Your task to perform on an android device: turn pop-ups on in chrome Image 0: 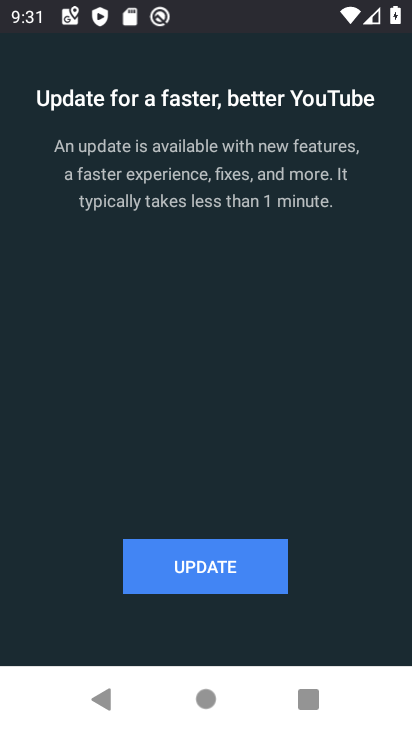
Step 0: press back button
Your task to perform on an android device: turn pop-ups on in chrome Image 1: 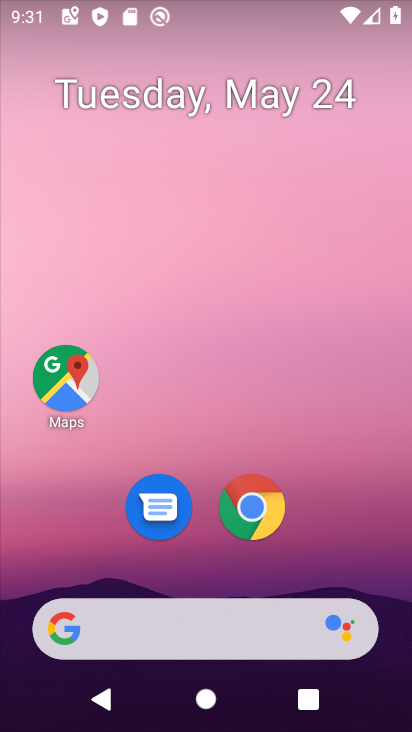
Step 1: click (266, 518)
Your task to perform on an android device: turn pop-ups on in chrome Image 2: 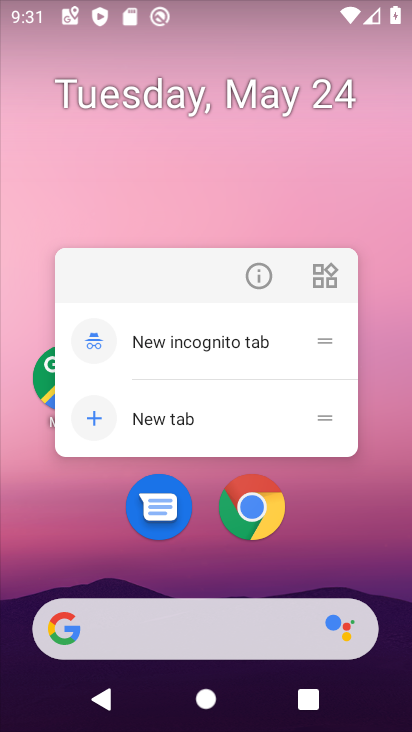
Step 2: click (261, 518)
Your task to perform on an android device: turn pop-ups on in chrome Image 3: 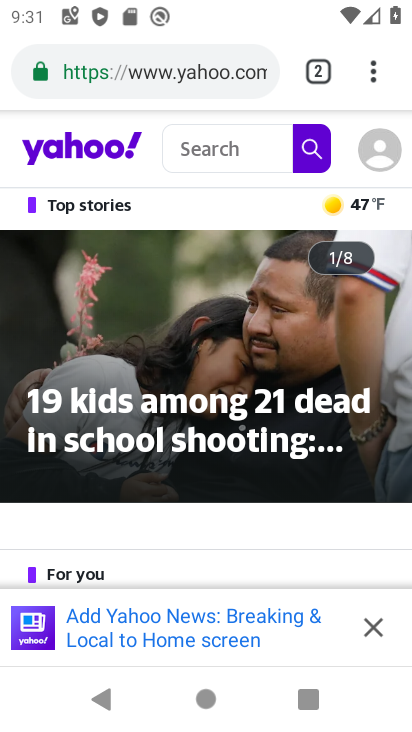
Step 3: drag from (386, 87) to (189, 478)
Your task to perform on an android device: turn pop-ups on in chrome Image 4: 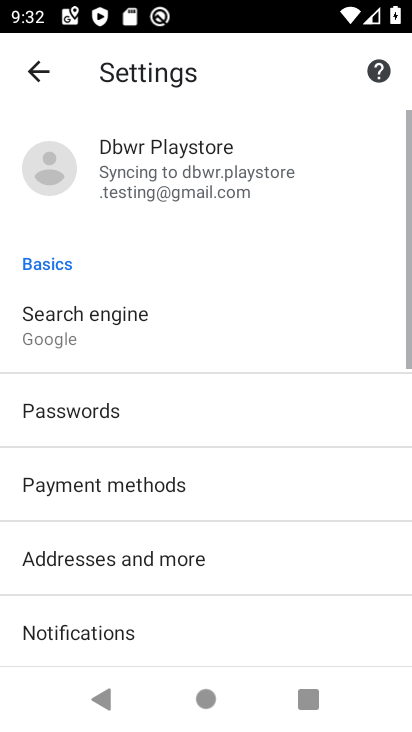
Step 4: drag from (201, 538) to (298, 148)
Your task to perform on an android device: turn pop-ups on in chrome Image 5: 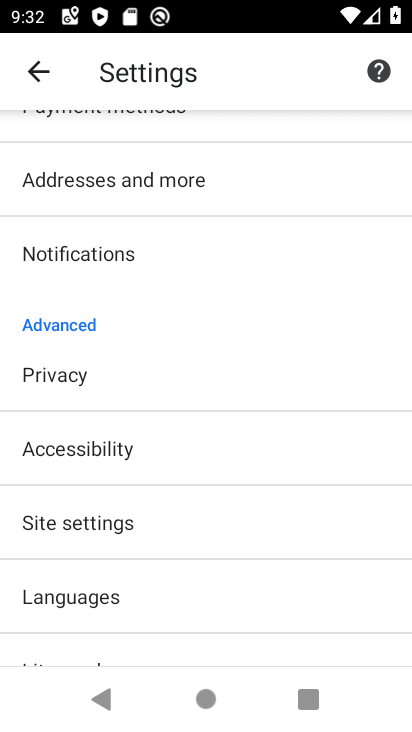
Step 5: click (194, 539)
Your task to perform on an android device: turn pop-ups on in chrome Image 6: 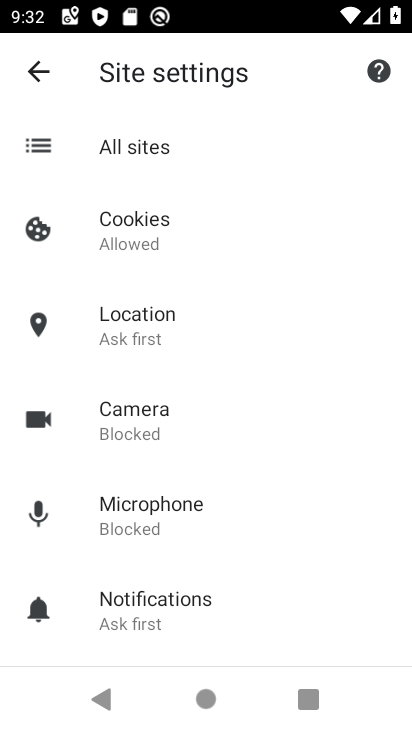
Step 6: drag from (184, 581) to (259, 235)
Your task to perform on an android device: turn pop-ups on in chrome Image 7: 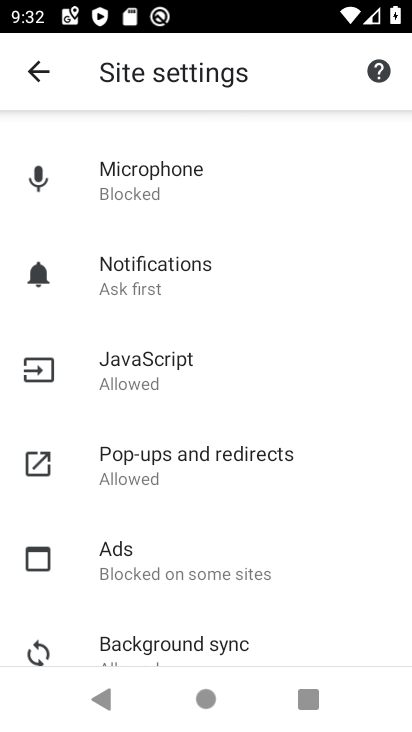
Step 7: click (211, 469)
Your task to perform on an android device: turn pop-ups on in chrome Image 8: 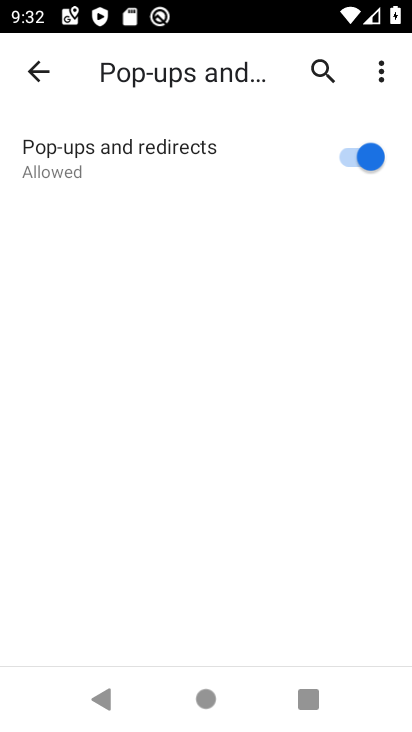
Step 8: task complete